Your task to perform on an android device: Open Maps and search for coffee Image 0: 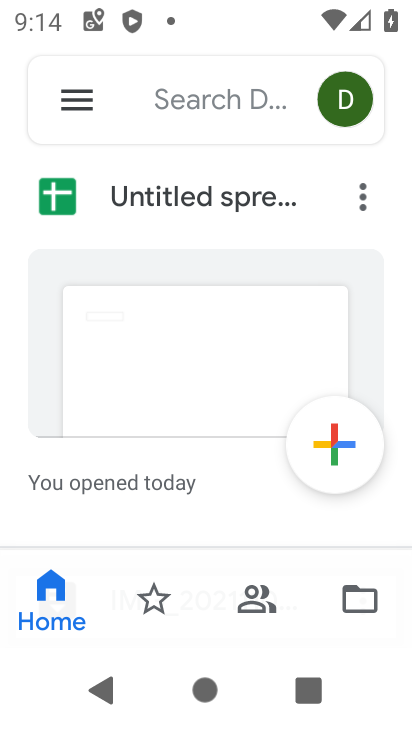
Step 0: press home button
Your task to perform on an android device: Open Maps and search for coffee Image 1: 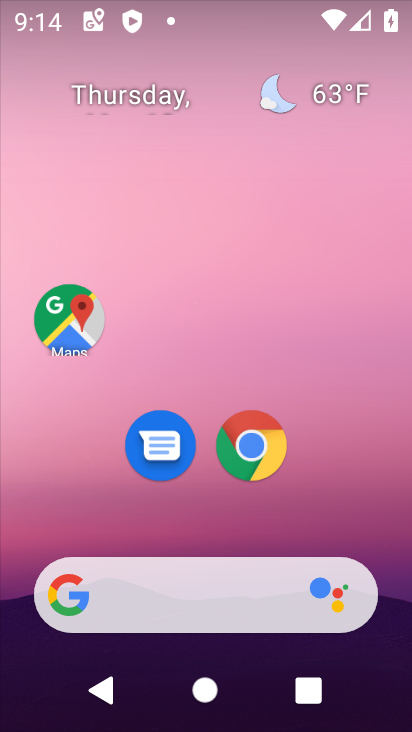
Step 1: click (91, 319)
Your task to perform on an android device: Open Maps and search for coffee Image 2: 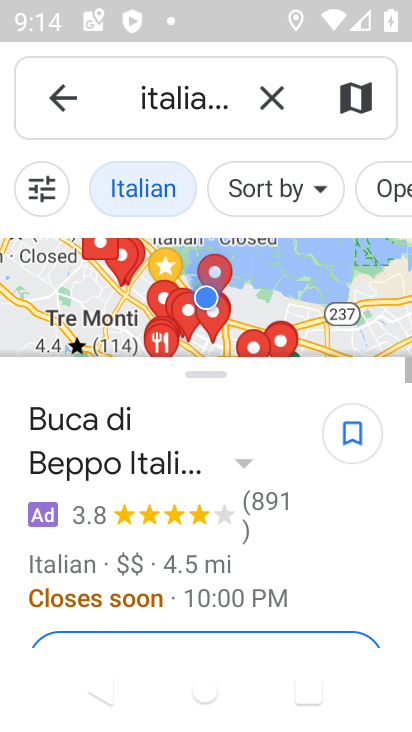
Step 2: click (272, 94)
Your task to perform on an android device: Open Maps and search for coffee Image 3: 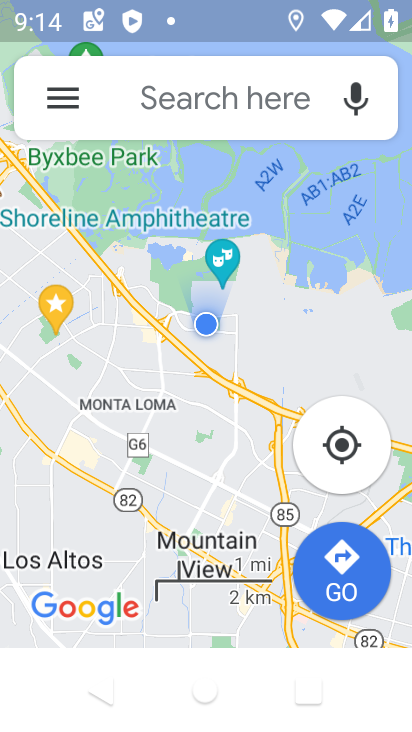
Step 3: click (187, 94)
Your task to perform on an android device: Open Maps and search for coffee Image 4: 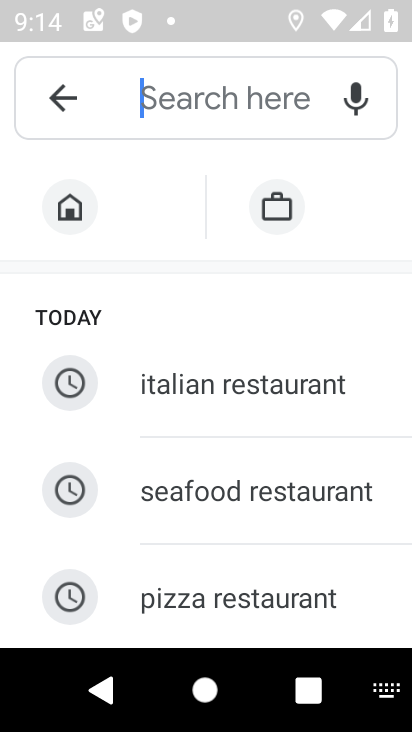
Step 4: type "coffee"
Your task to perform on an android device: Open Maps and search for coffee Image 5: 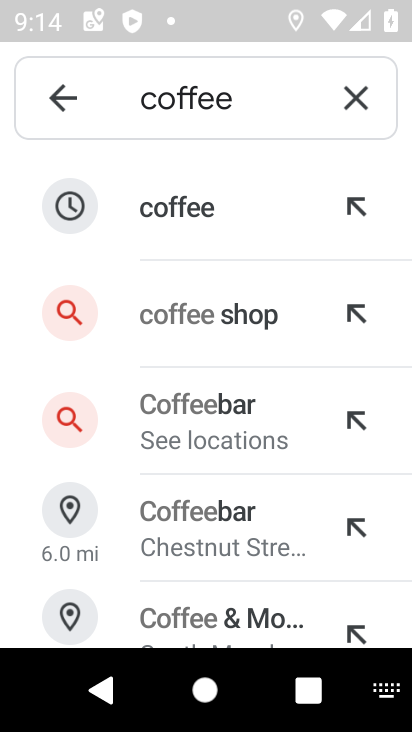
Step 5: click (220, 235)
Your task to perform on an android device: Open Maps and search for coffee Image 6: 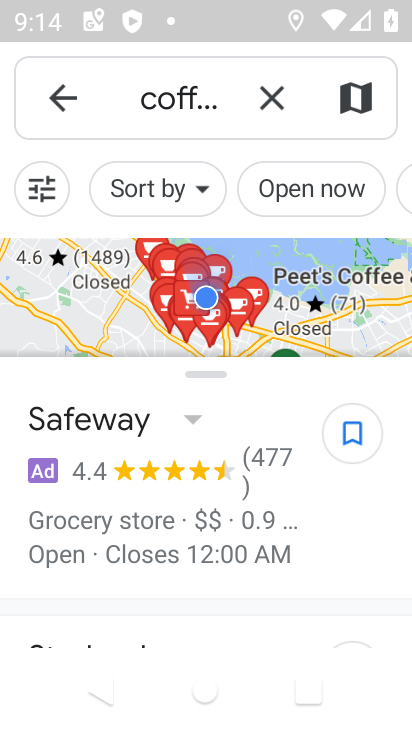
Step 6: task complete